Your task to perform on an android device: snooze an email in the gmail app Image 0: 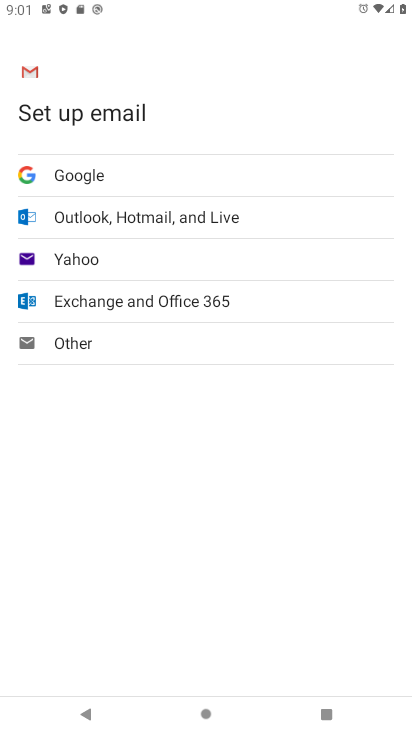
Step 0: press home button
Your task to perform on an android device: snooze an email in the gmail app Image 1: 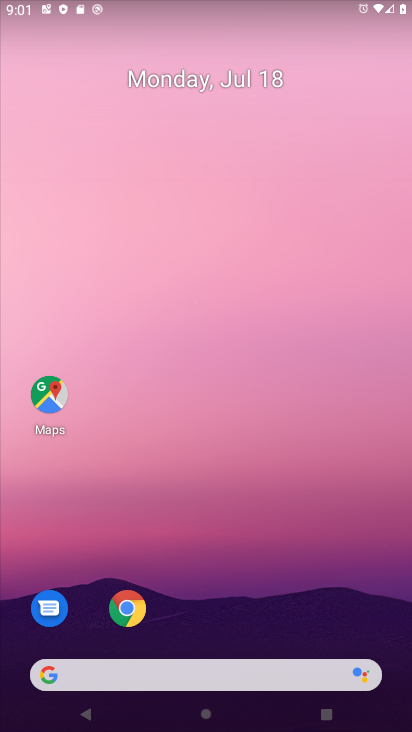
Step 1: drag from (232, 727) to (245, 254)
Your task to perform on an android device: snooze an email in the gmail app Image 2: 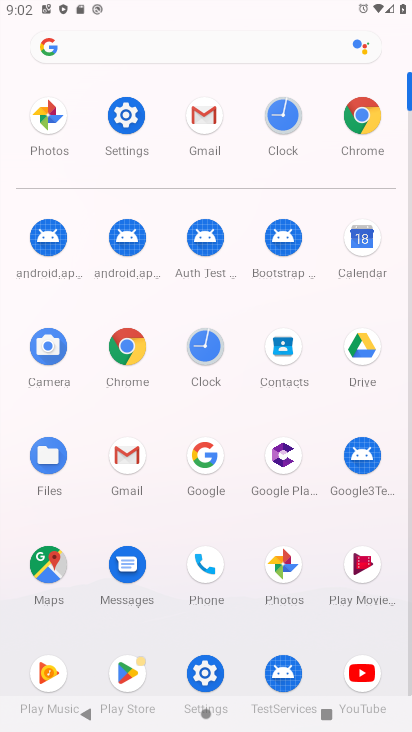
Step 2: click (133, 453)
Your task to perform on an android device: snooze an email in the gmail app Image 3: 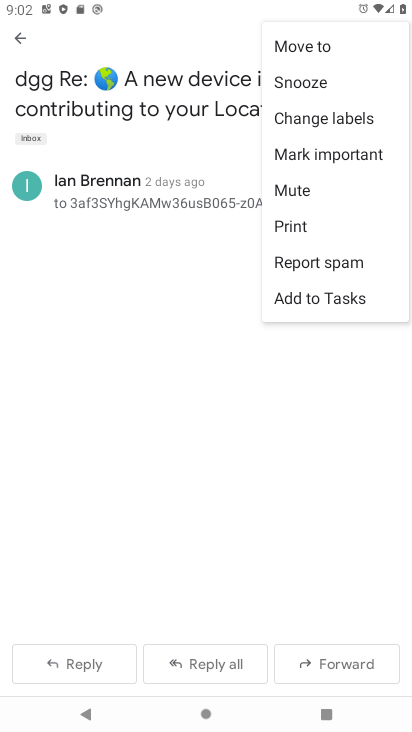
Step 3: click (141, 451)
Your task to perform on an android device: snooze an email in the gmail app Image 4: 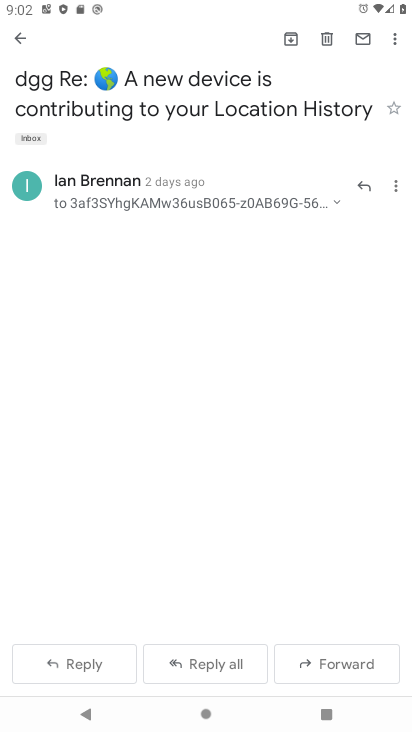
Step 4: click (21, 34)
Your task to perform on an android device: snooze an email in the gmail app Image 5: 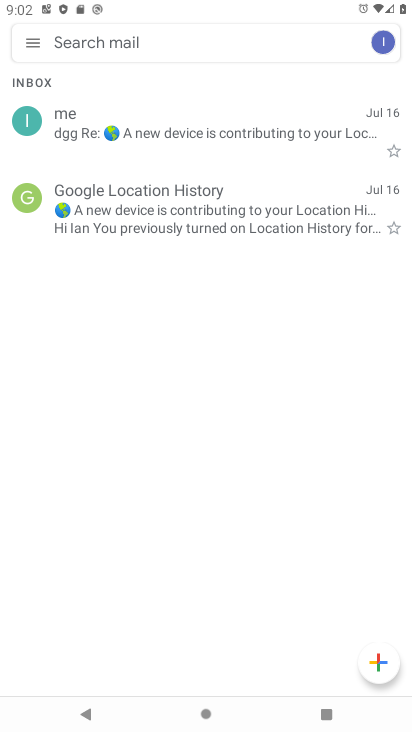
Step 5: click (145, 204)
Your task to perform on an android device: snooze an email in the gmail app Image 6: 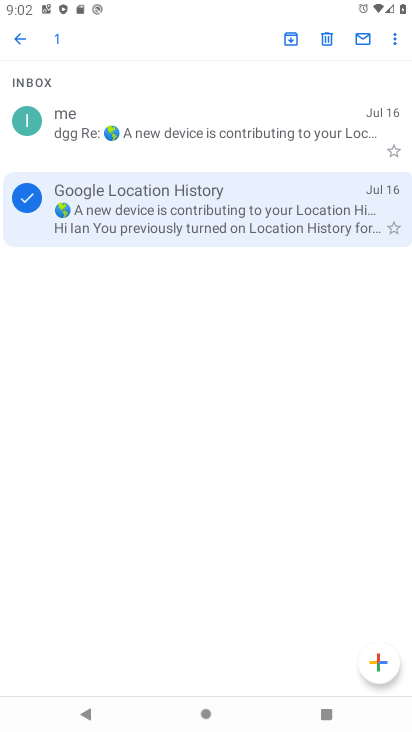
Step 6: click (395, 40)
Your task to perform on an android device: snooze an email in the gmail app Image 7: 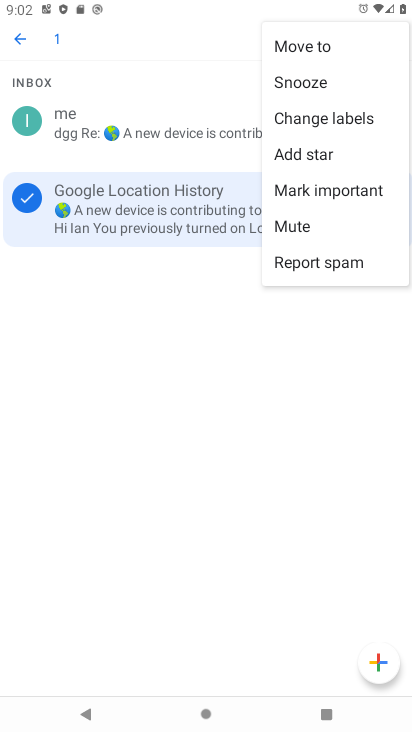
Step 7: click (302, 78)
Your task to perform on an android device: snooze an email in the gmail app Image 8: 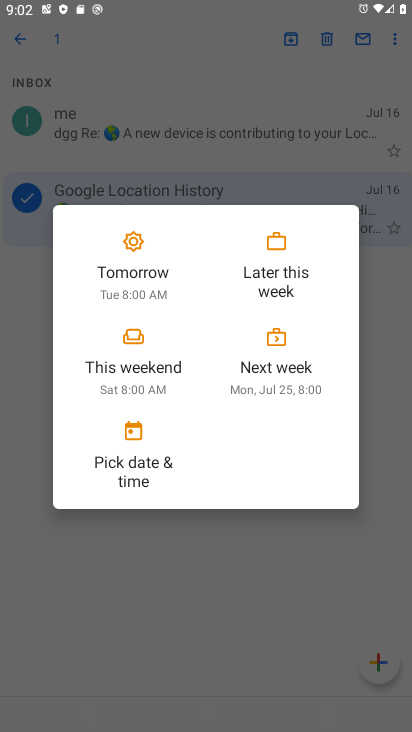
Step 8: click (133, 274)
Your task to perform on an android device: snooze an email in the gmail app Image 9: 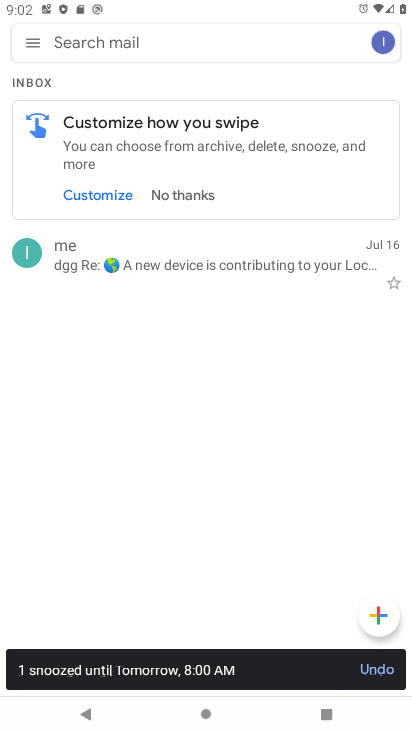
Step 9: task complete